Your task to perform on an android device: move a message to another label in the gmail app Image 0: 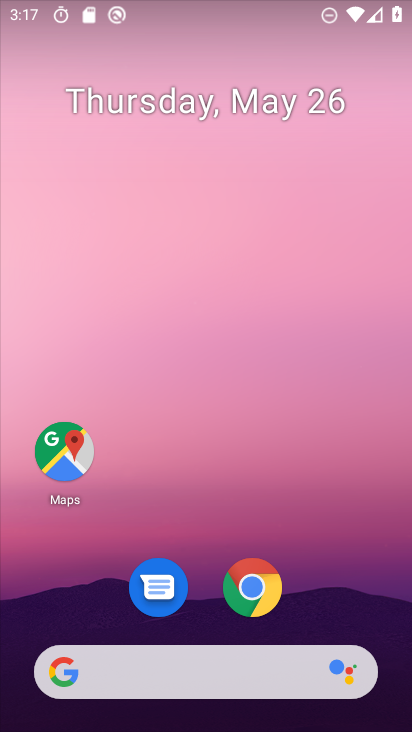
Step 0: drag from (330, 539) to (273, 151)
Your task to perform on an android device: move a message to another label in the gmail app Image 1: 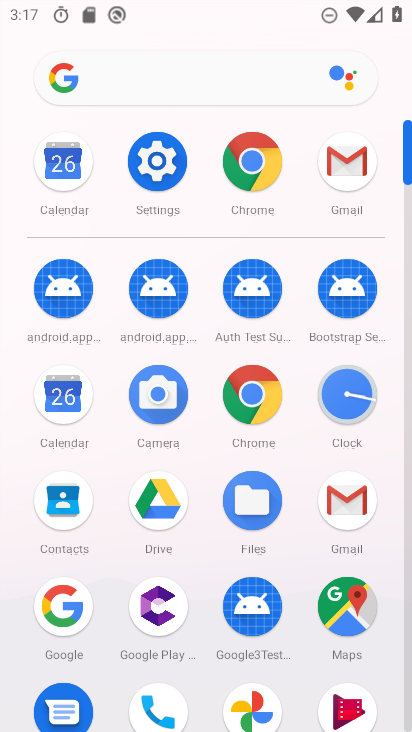
Step 1: click (346, 501)
Your task to perform on an android device: move a message to another label in the gmail app Image 2: 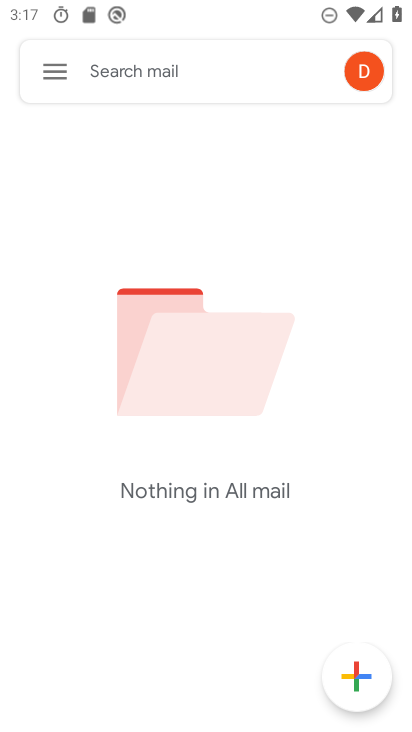
Step 2: click (47, 83)
Your task to perform on an android device: move a message to another label in the gmail app Image 3: 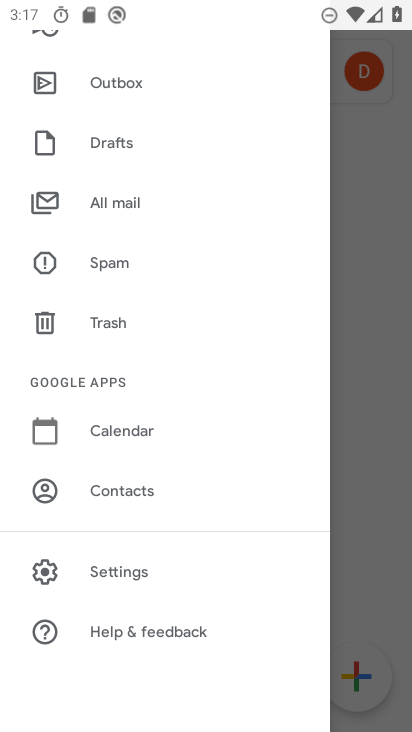
Step 3: click (126, 204)
Your task to perform on an android device: move a message to another label in the gmail app Image 4: 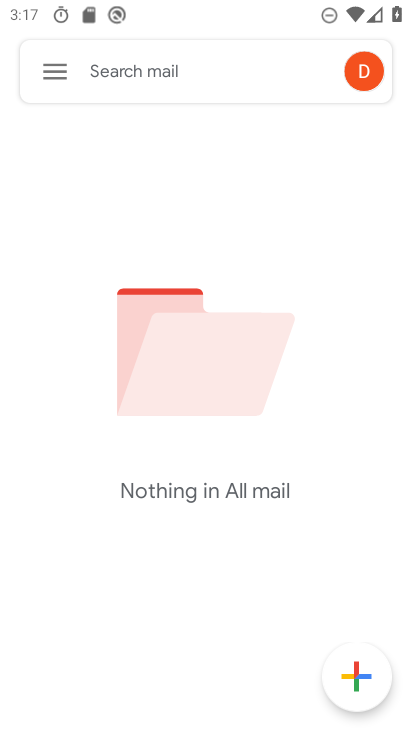
Step 4: task complete